Your task to perform on an android device: stop showing notifications on the lock screen Image 0: 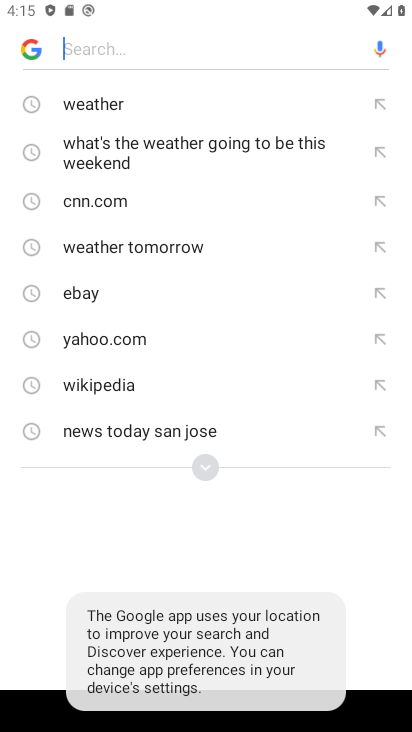
Step 0: press home button
Your task to perform on an android device: stop showing notifications on the lock screen Image 1: 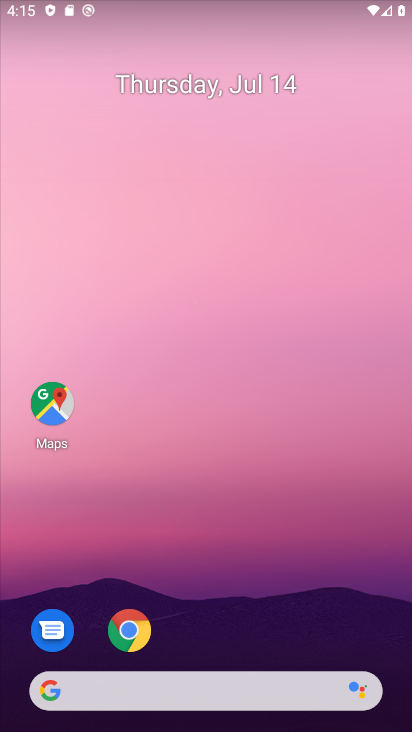
Step 1: drag from (206, 665) to (236, 242)
Your task to perform on an android device: stop showing notifications on the lock screen Image 2: 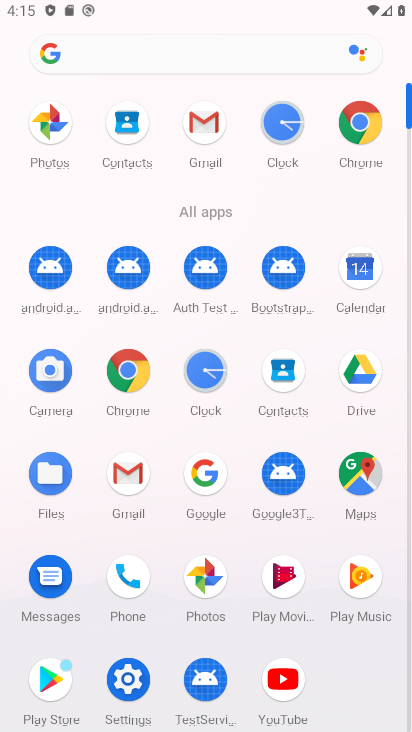
Step 2: click (125, 691)
Your task to perform on an android device: stop showing notifications on the lock screen Image 3: 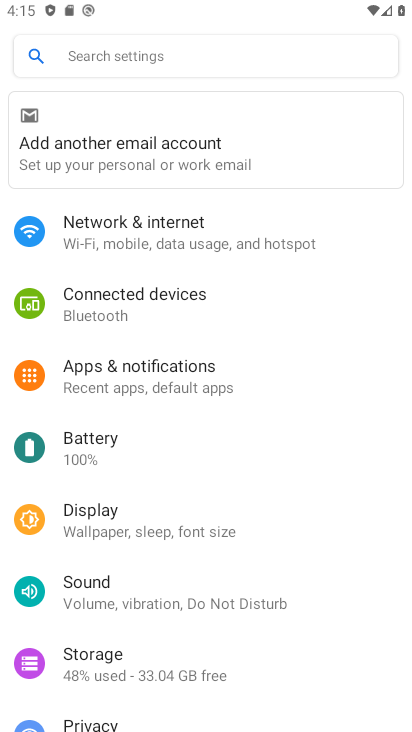
Step 3: click (245, 387)
Your task to perform on an android device: stop showing notifications on the lock screen Image 4: 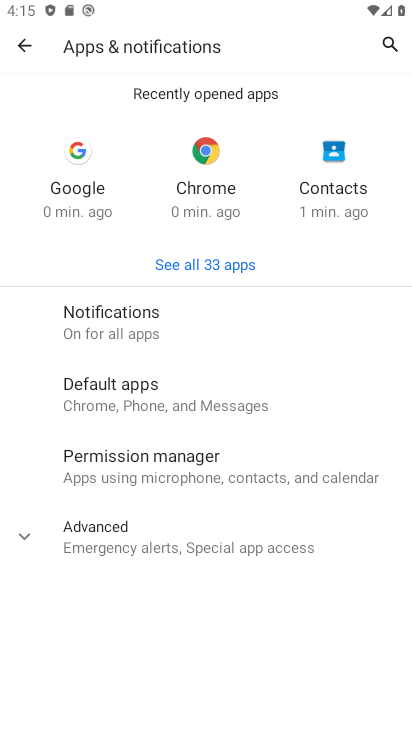
Step 4: click (150, 335)
Your task to perform on an android device: stop showing notifications on the lock screen Image 5: 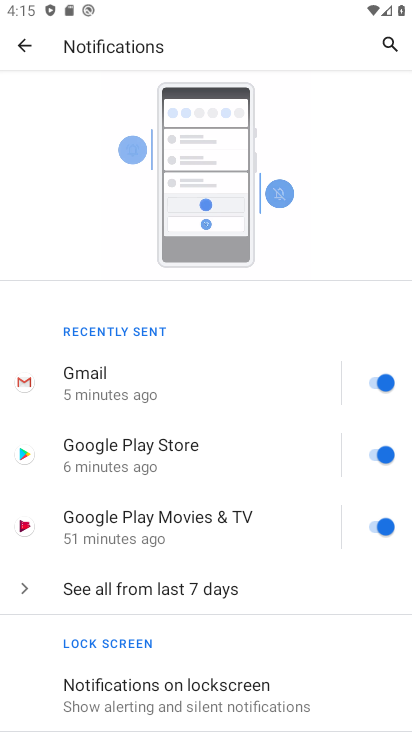
Step 5: click (200, 674)
Your task to perform on an android device: stop showing notifications on the lock screen Image 6: 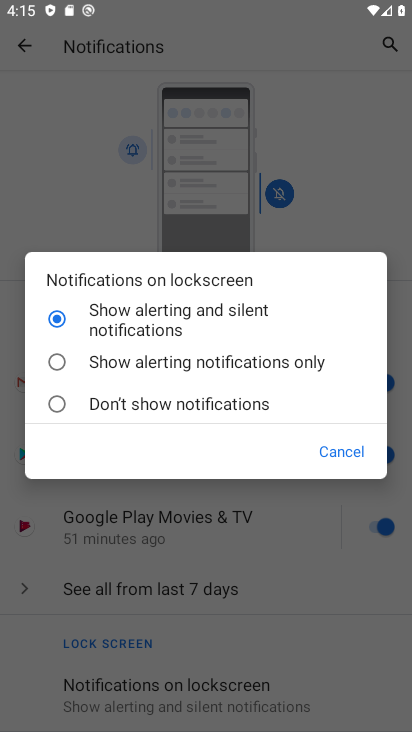
Step 6: click (181, 414)
Your task to perform on an android device: stop showing notifications on the lock screen Image 7: 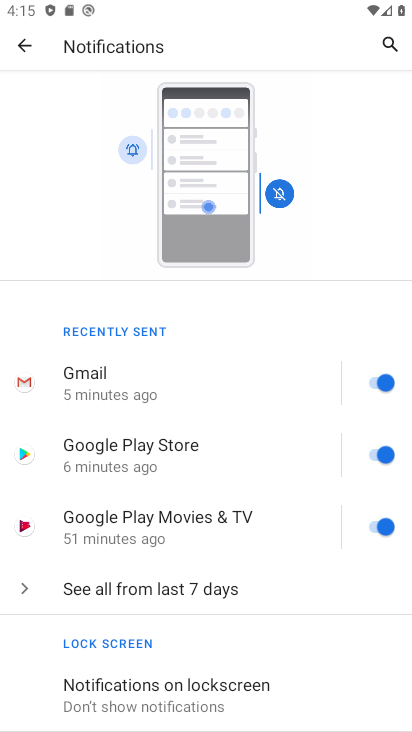
Step 7: task complete